Your task to perform on an android device: What's the weather today? Image 0: 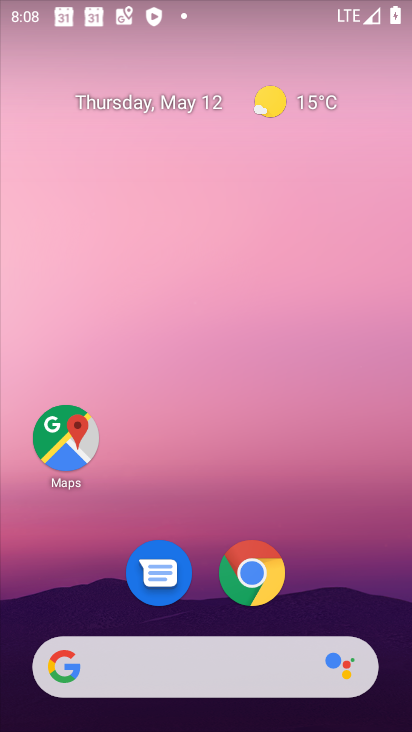
Step 0: click (236, 656)
Your task to perform on an android device: What's the weather today? Image 1: 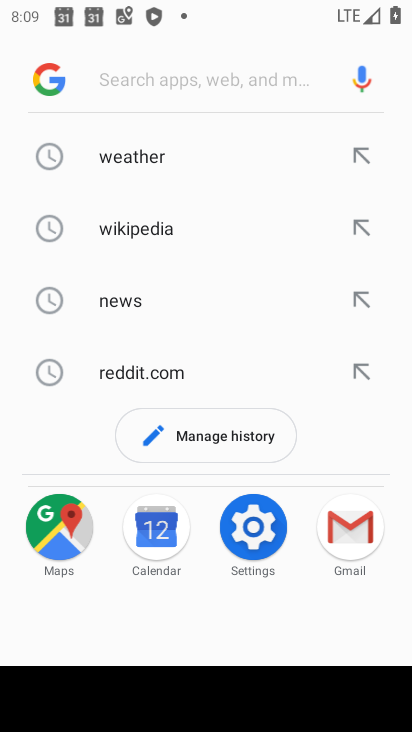
Step 1: click (131, 145)
Your task to perform on an android device: What's the weather today? Image 2: 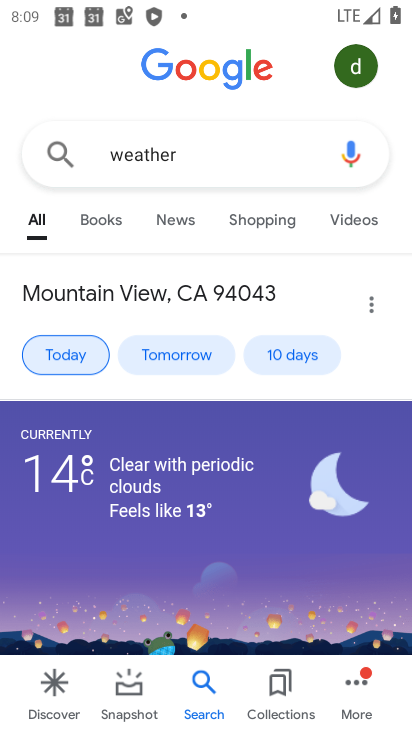
Step 2: task complete